Your task to perform on an android device: set default search engine in the chrome app Image 0: 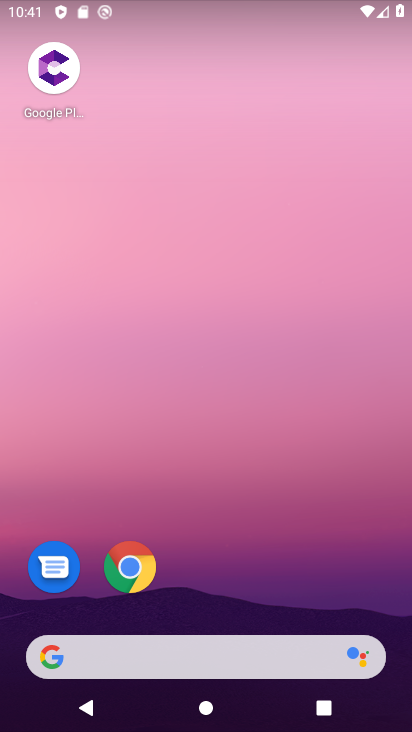
Step 0: press home button
Your task to perform on an android device: set default search engine in the chrome app Image 1: 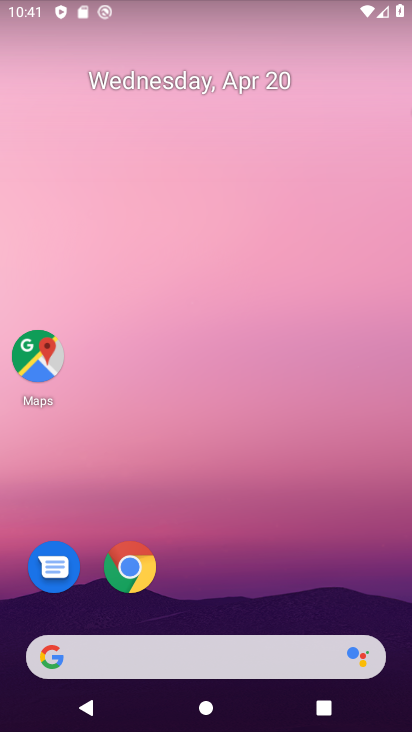
Step 1: click (134, 573)
Your task to perform on an android device: set default search engine in the chrome app Image 2: 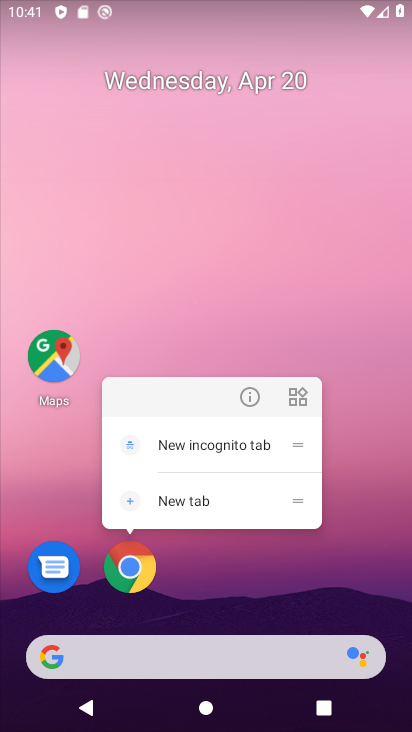
Step 2: click (134, 569)
Your task to perform on an android device: set default search engine in the chrome app Image 3: 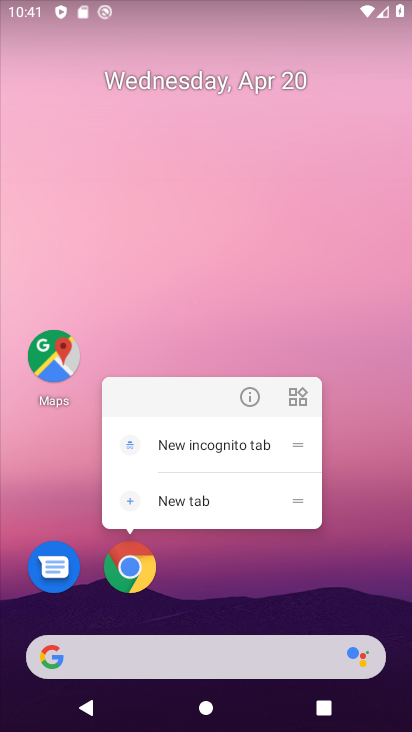
Step 3: click (130, 579)
Your task to perform on an android device: set default search engine in the chrome app Image 4: 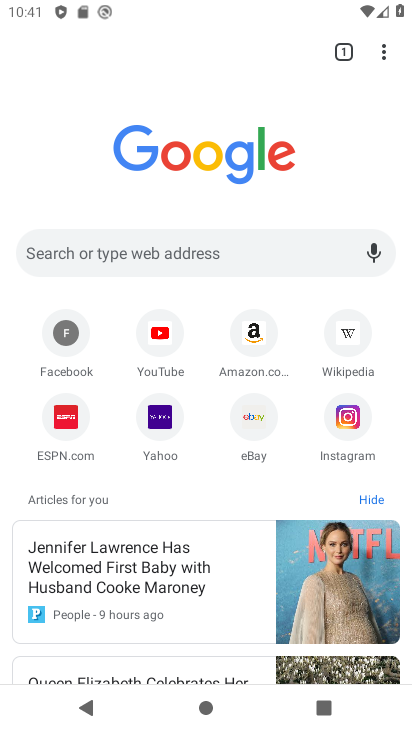
Step 4: drag from (383, 49) to (202, 437)
Your task to perform on an android device: set default search engine in the chrome app Image 5: 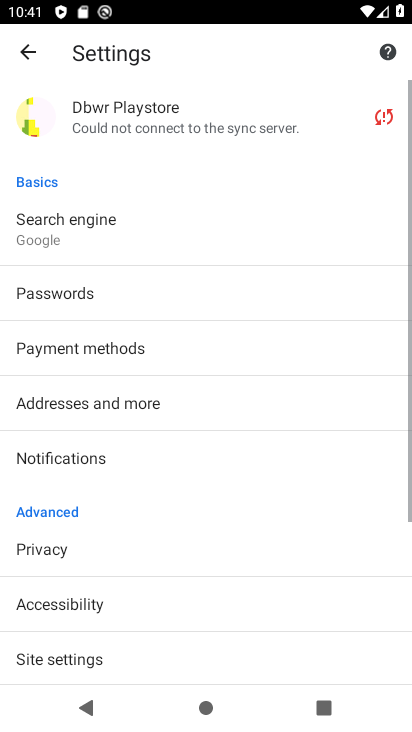
Step 5: click (68, 246)
Your task to perform on an android device: set default search engine in the chrome app Image 6: 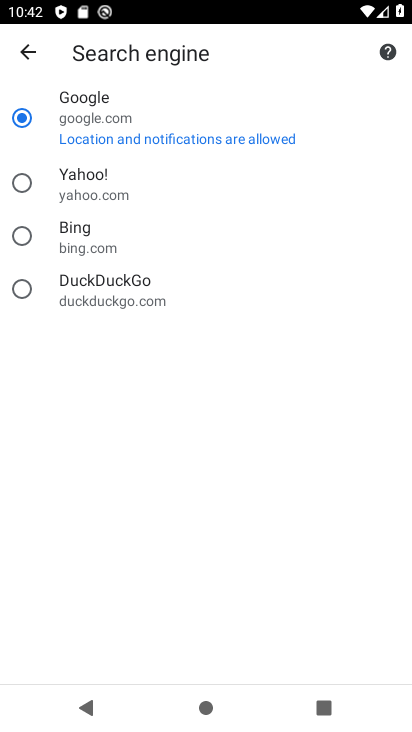
Step 6: click (24, 114)
Your task to perform on an android device: set default search engine in the chrome app Image 7: 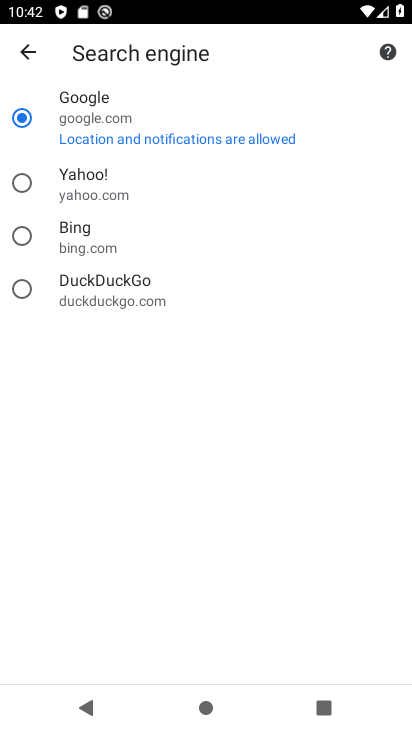
Step 7: task complete